Your task to perform on an android device: move an email to a new category in the gmail app Image 0: 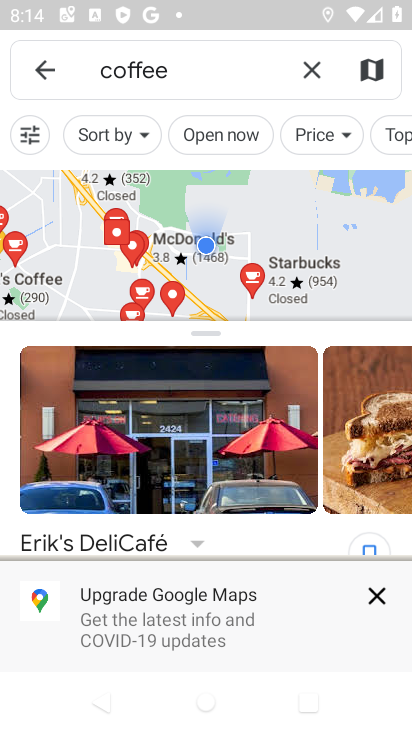
Step 0: press home button
Your task to perform on an android device: move an email to a new category in the gmail app Image 1: 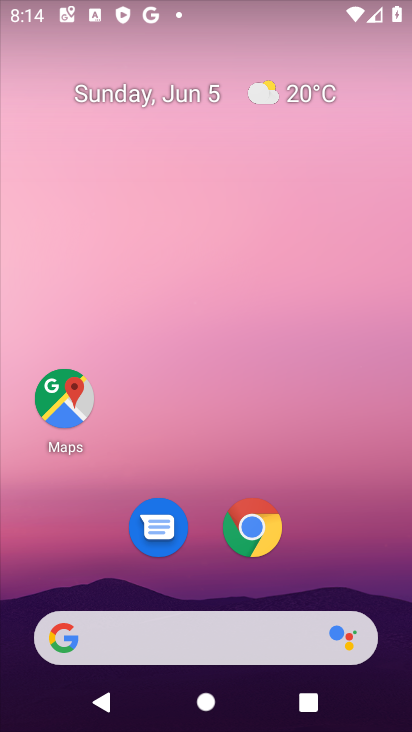
Step 1: drag from (204, 589) to (188, 35)
Your task to perform on an android device: move an email to a new category in the gmail app Image 2: 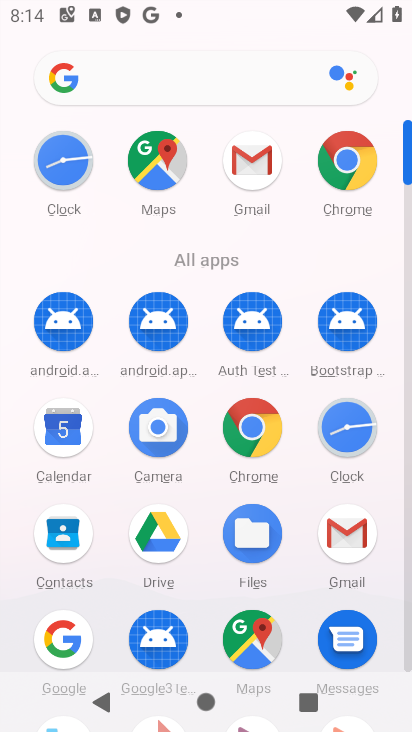
Step 2: click (253, 156)
Your task to perform on an android device: move an email to a new category in the gmail app Image 3: 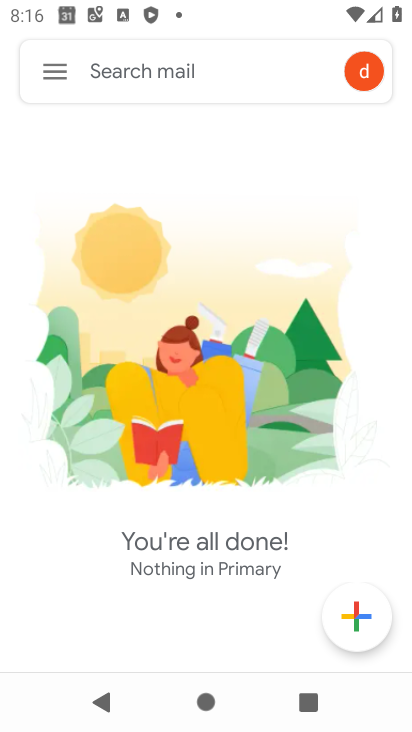
Step 3: task complete